Your task to perform on an android device: Search for a 24-inch cordless drill. Image 0: 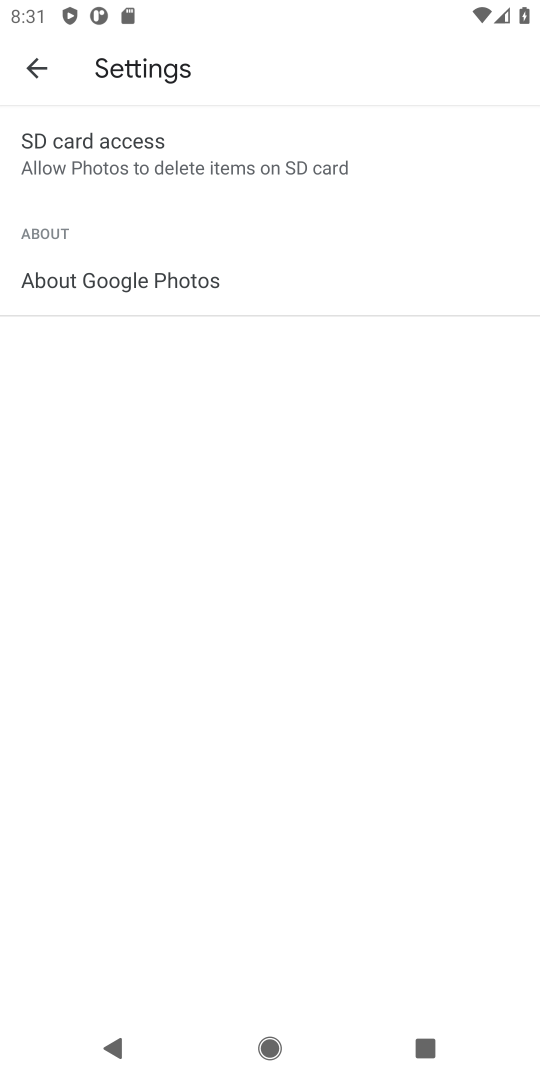
Step 0: press home button
Your task to perform on an android device: Search for a 24-inch cordless drill. Image 1: 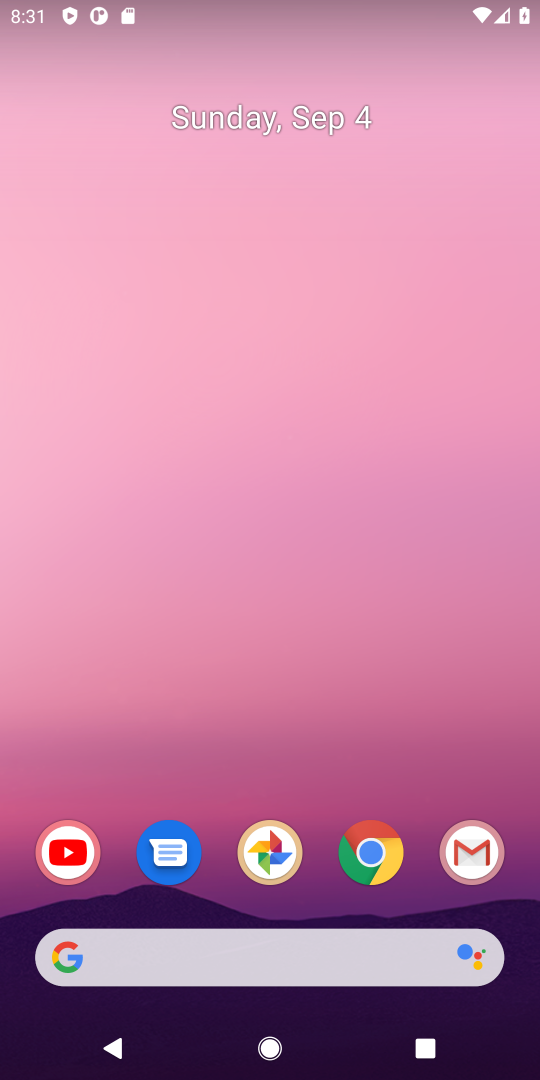
Step 1: drag from (356, 568) to (249, 26)
Your task to perform on an android device: Search for a 24-inch cordless drill. Image 2: 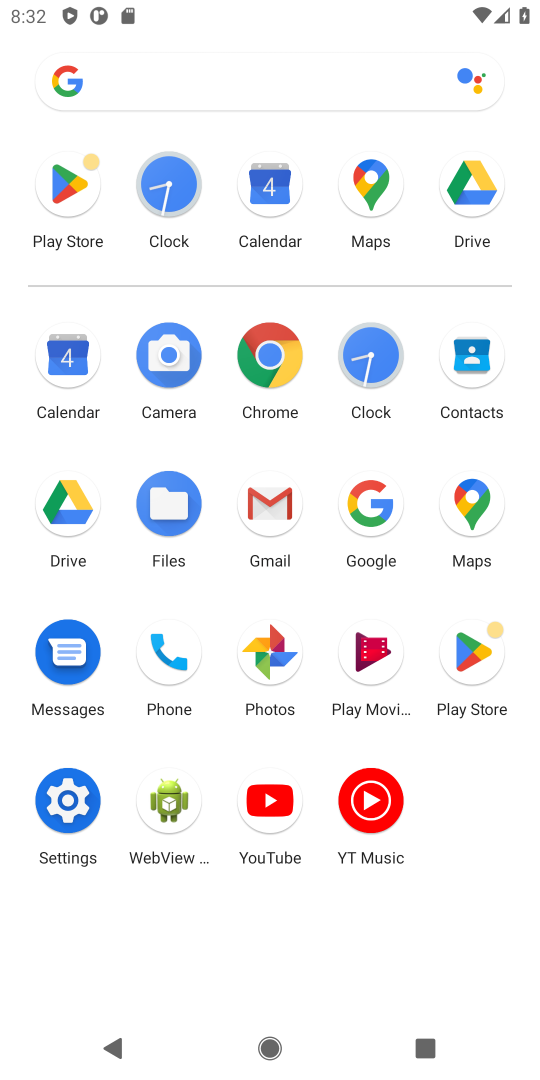
Step 2: click (359, 516)
Your task to perform on an android device: Search for a 24-inch cordless drill. Image 3: 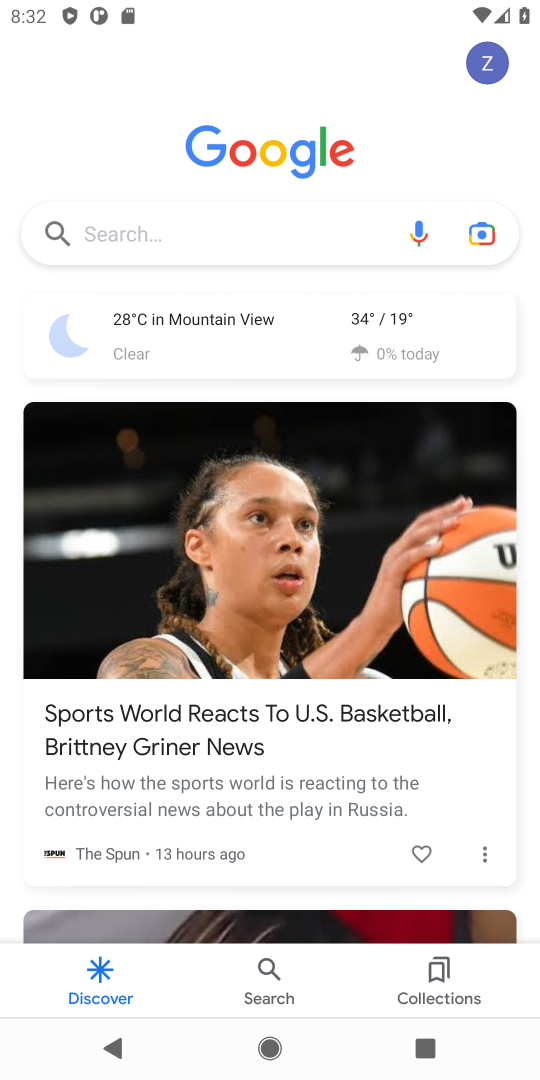
Step 3: click (166, 240)
Your task to perform on an android device: Search for a 24-inch cordless drill. Image 4: 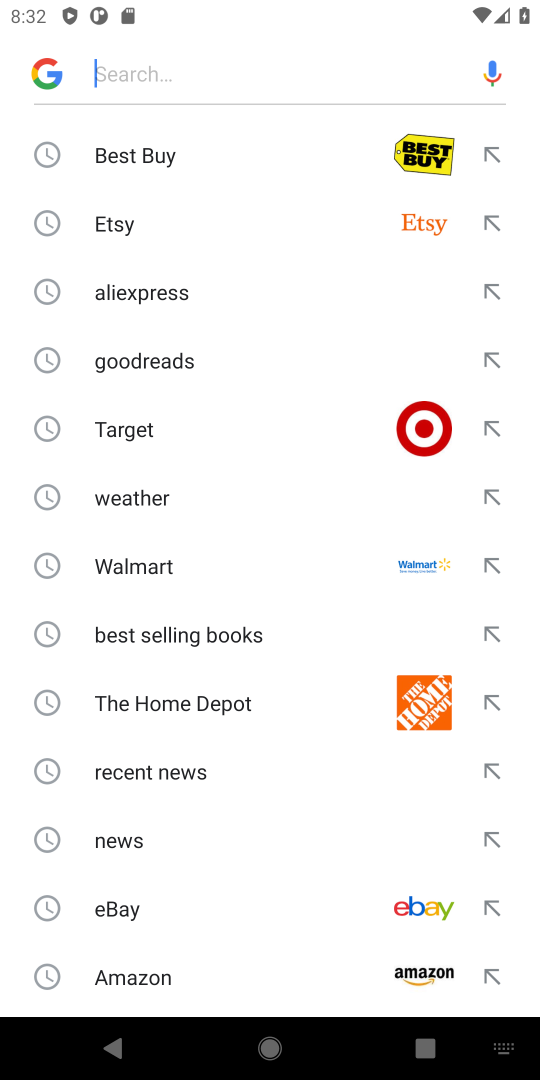
Step 4: drag from (267, 912) to (235, 254)
Your task to perform on an android device: Search for a 24-inch cordless drill. Image 5: 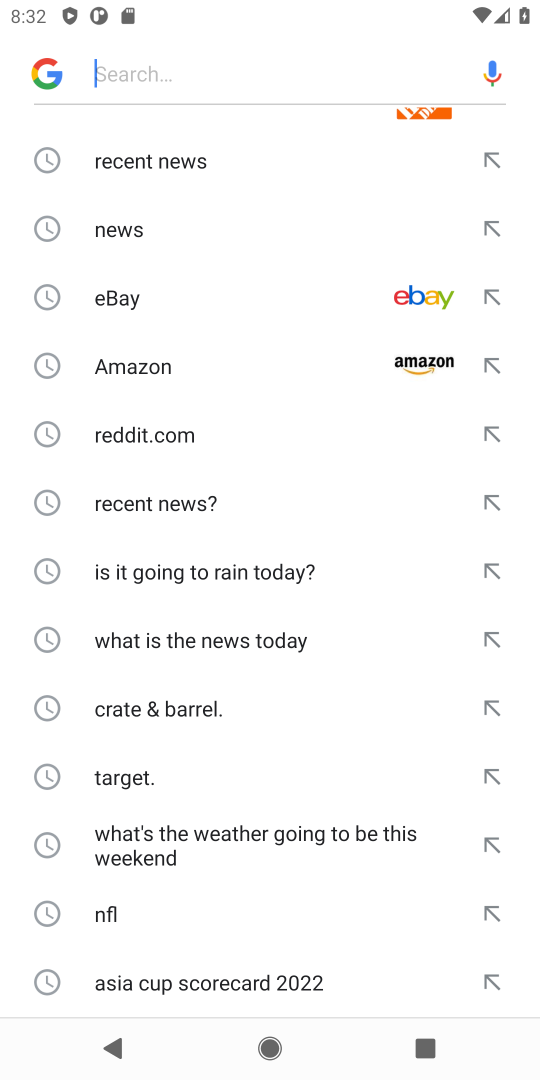
Step 5: drag from (119, 901) to (134, 214)
Your task to perform on an android device: Search for a 24-inch cordless drill. Image 6: 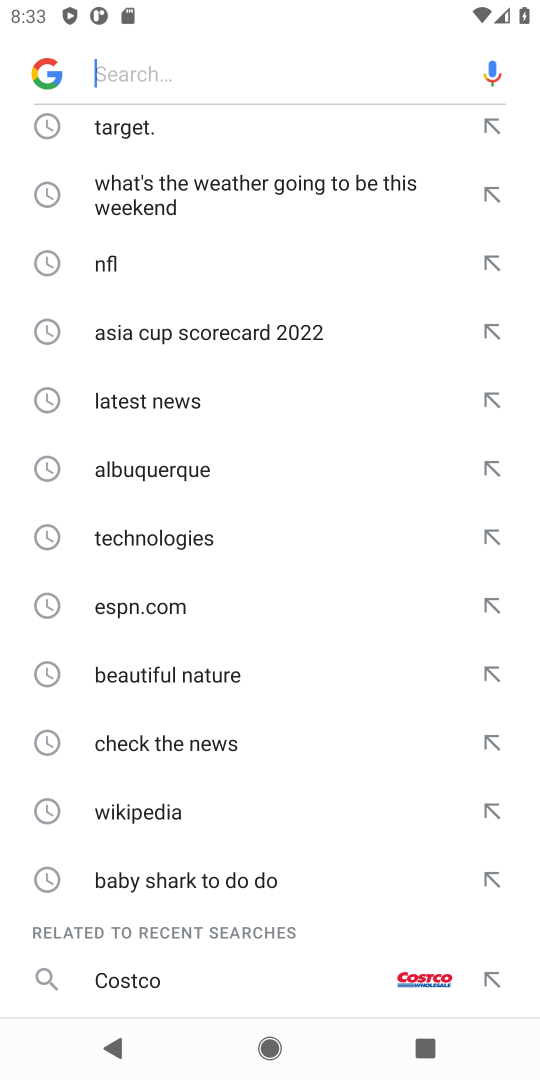
Step 6: type "drill"
Your task to perform on an android device: Search for a 24-inch cordless drill. Image 7: 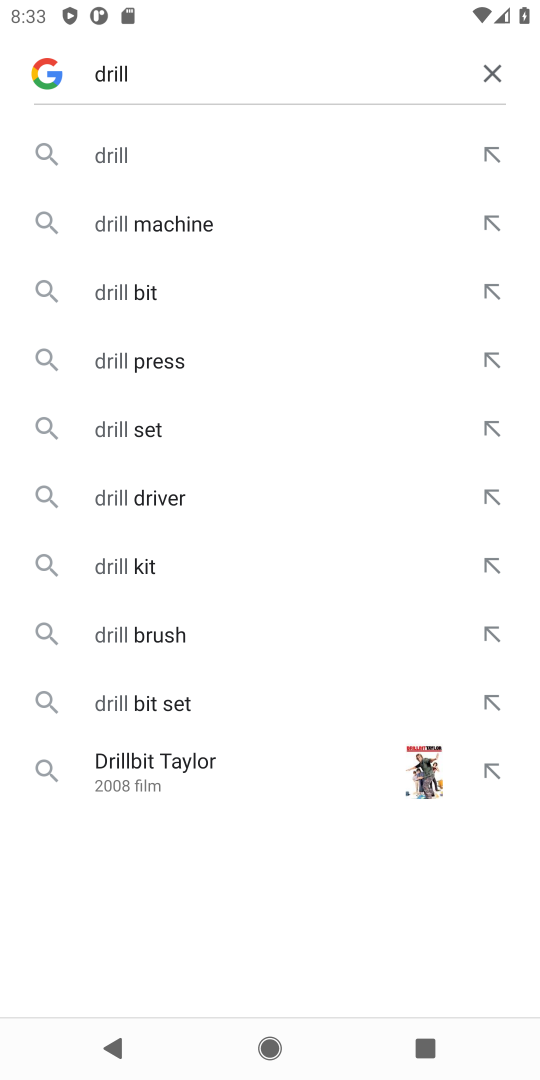
Step 7: click (107, 165)
Your task to perform on an android device: Search for a 24-inch cordless drill. Image 8: 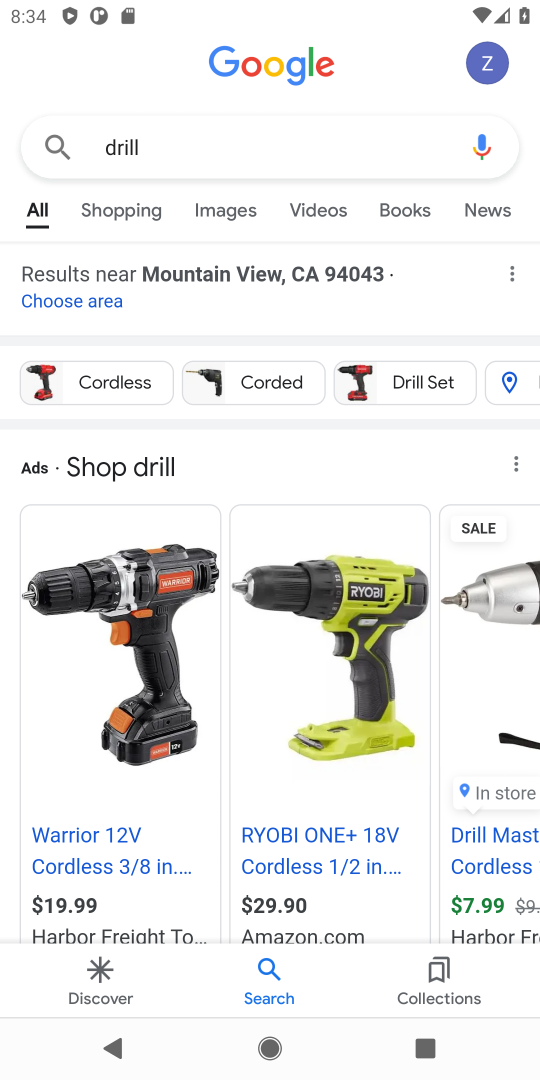
Step 8: task complete